Your task to perform on an android device: turn on sleep mode Image 0: 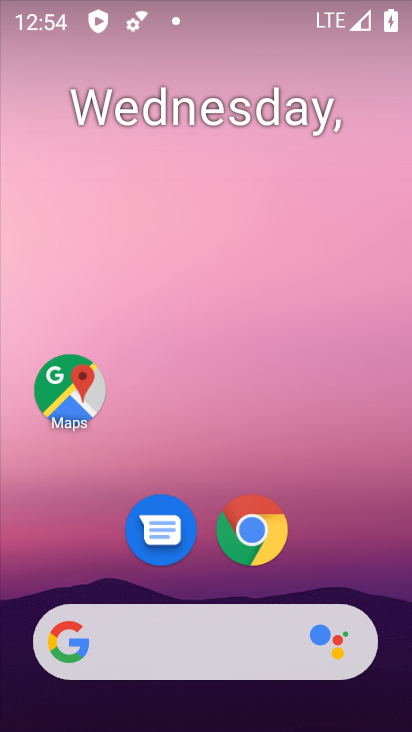
Step 0: drag from (356, 503) to (334, 44)
Your task to perform on an android device: turn on sleep mode Image 1: 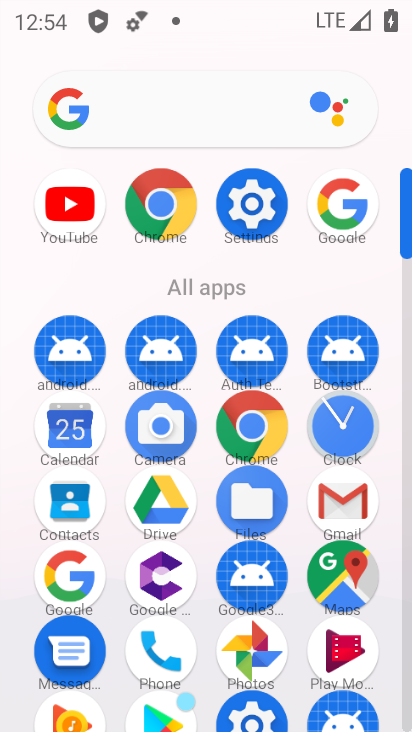
Step 1: click (243, 193)
Your task to perform on an android device: turn on sleep mode Image 2: 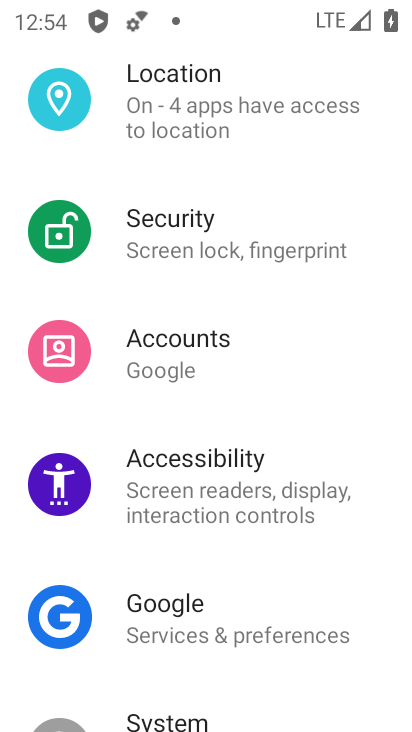
Step 2: drag from (201, 106) to (264, 610)
Your task to perform on an android device: turn on sleep mode Image 3: 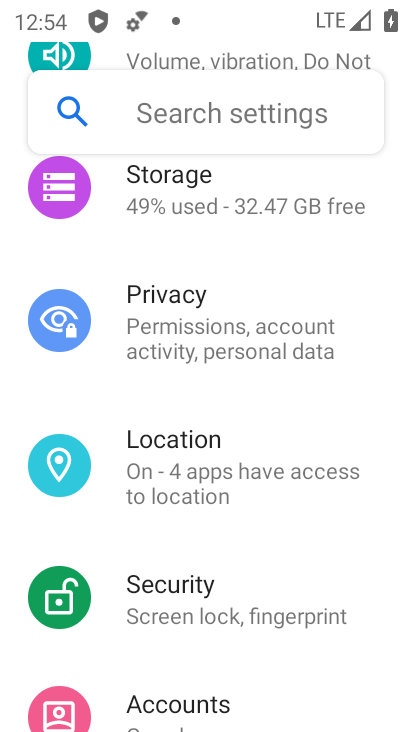
Step 3: click (261, 132)
Your task to perform on an android device: turn on sleep mode Image 4: 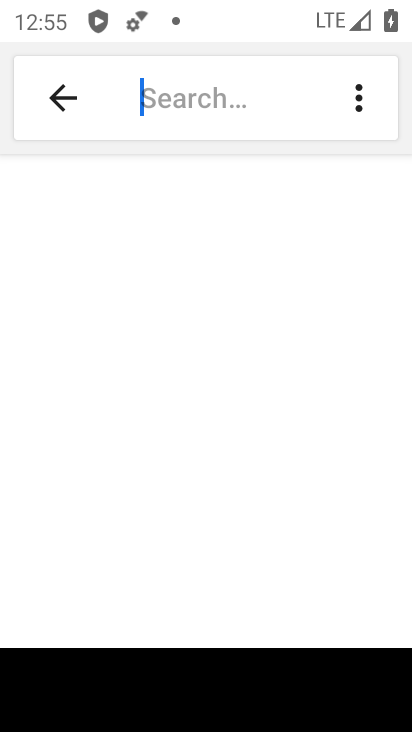
Step 4: type "sleep mode "
Your task to perform on an android device: turn on sleep mode Image 5: 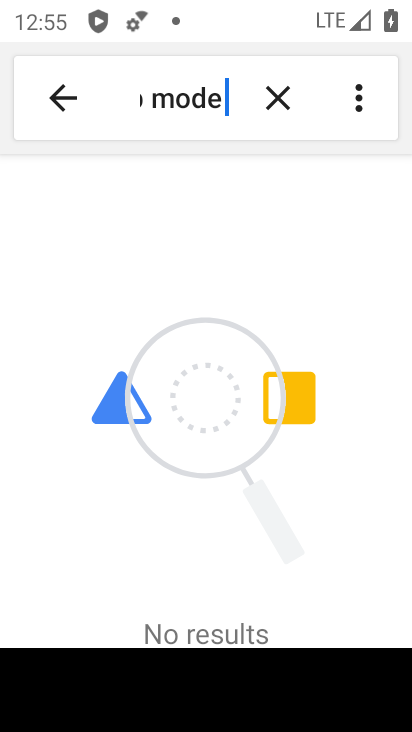
Step 5: task complete